Your task to perform on an android device: clear history in the chrome app Image 0: 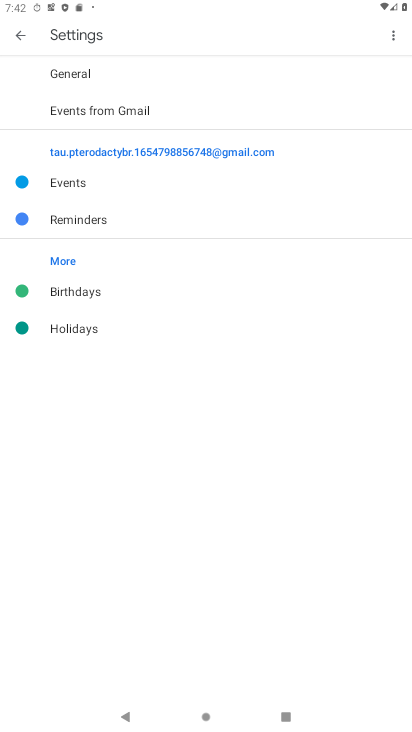
Step 0: press home button
Your task to perform on an android device: clear history in the chrome app Image 1: 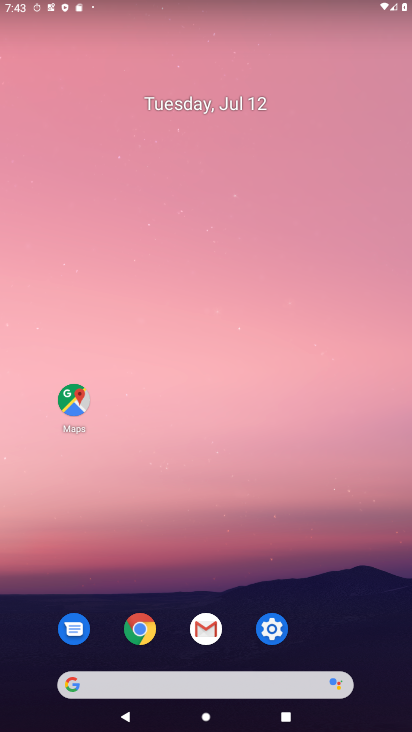
Step 1: click (141, 633)
Your task to perform on an android device: clear history in the chrome app Image 2: 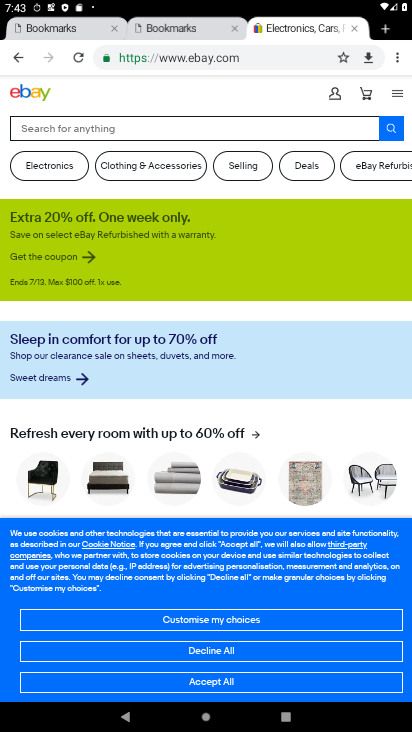
Step 2: click (404, 70)
Your task to perform on an android device: clear history in the chrome app Image 3: 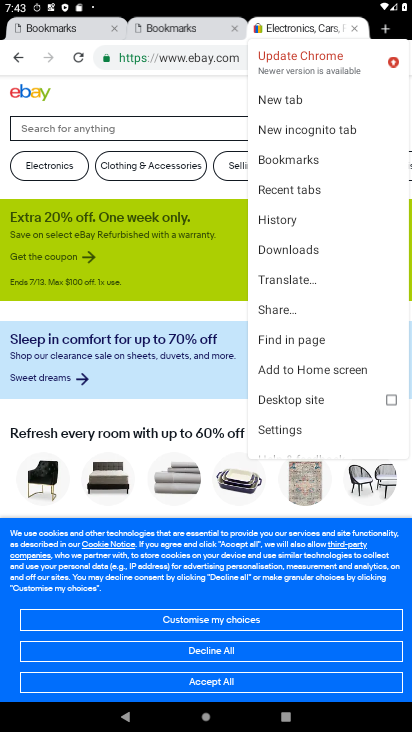
Step 3: click (281, 433)
Your task to perform on an android device: clear history in the chrome app Image 4: 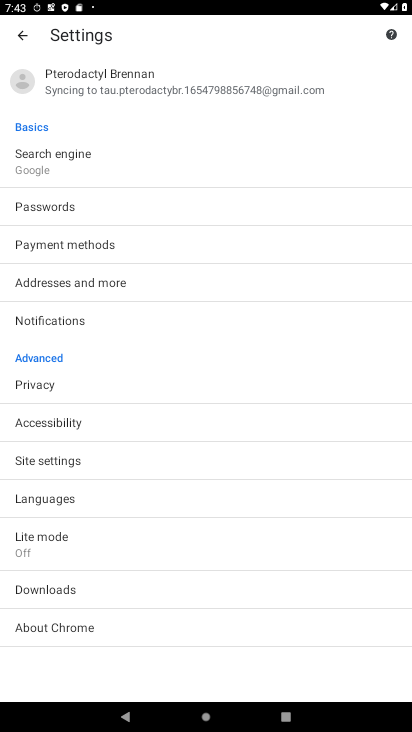
Step 4: click (22, 39)
Your task to perform on an android device: clear history in the chrome app Image 5: 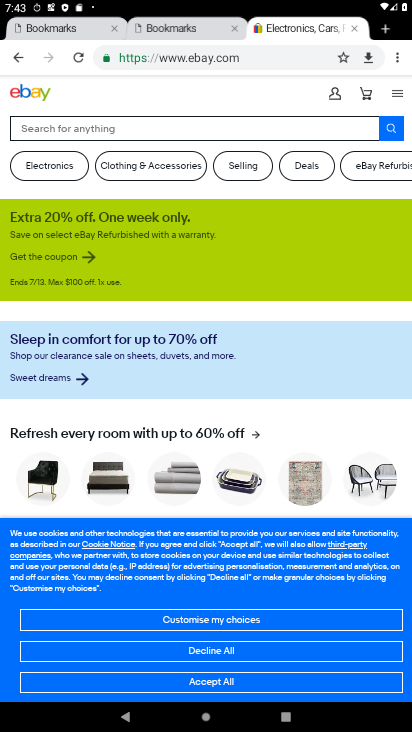
Step 5: click (400, 63)
Your task to perform on an android device: clear history in the chrome app Image 6: 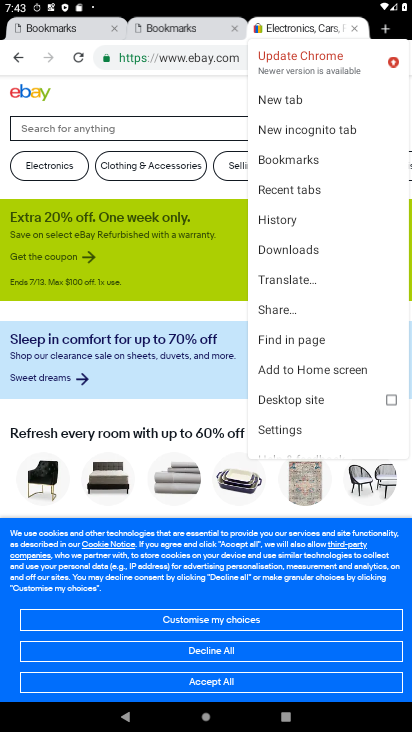
Step 6: click (280, 225)
Your task to perform on an android device: clear history in the chrome app Image 7: 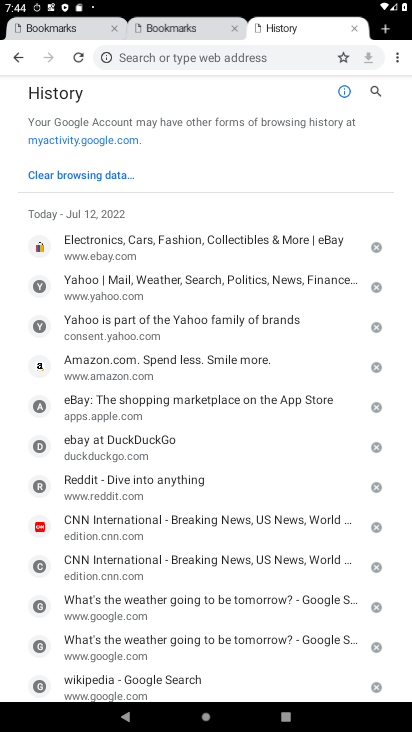
Step 7: task complete